Your task to perform on an android device: Go to Google maps Image 0: 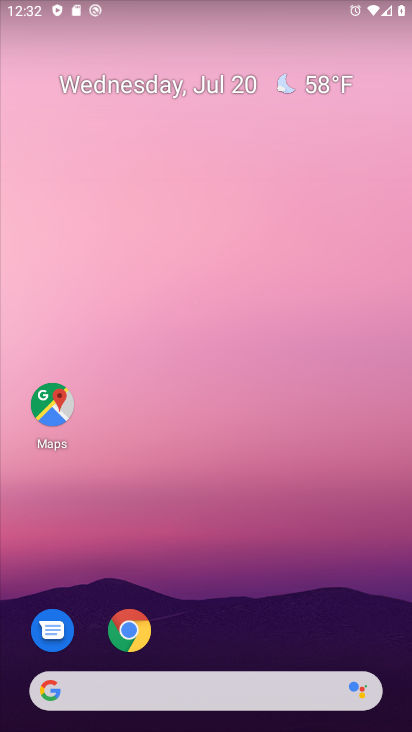
Step 0: click (50, 406)
Your task to perform on an android device: Go to Google maps Image 1: 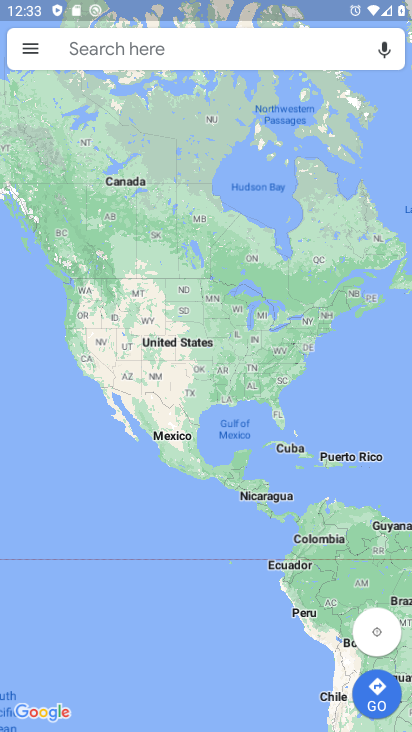
Step 1: task complete